Your task to perform on an android device: See recent photos Image 0: 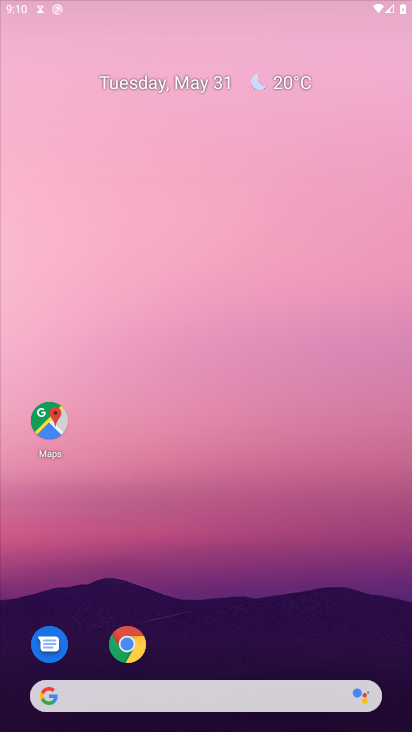
Step 0: press home button
Your task to perform on an android device: See recent photos Image 1: 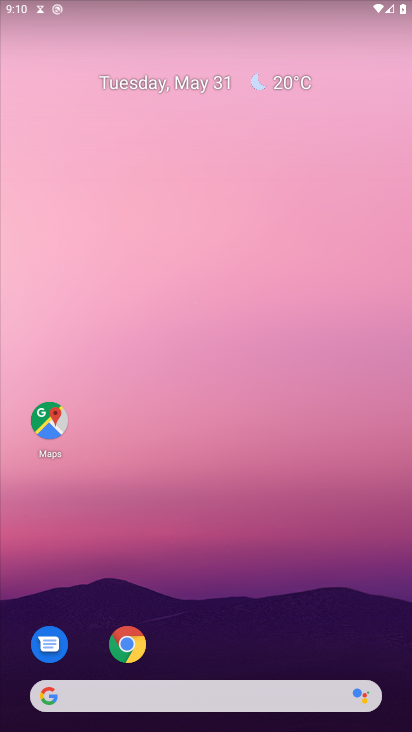
Step 1: drag from (231, 651) to (254, 99)
Your task to perform on an android device: See recent photos Image 2: 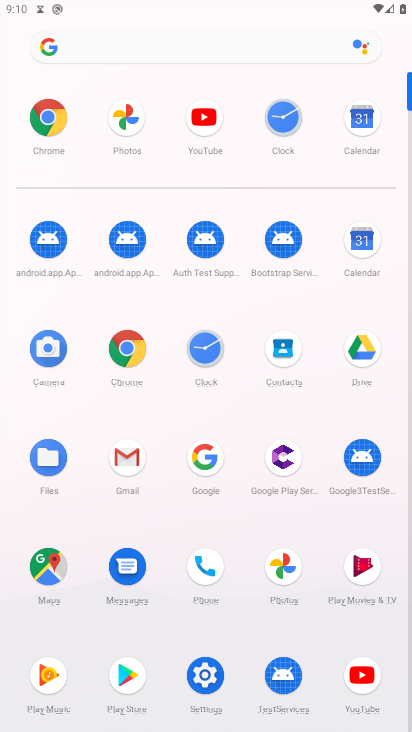
Step 2: click (280, 555)
Your task to perform on an android device: See recent photos Image 3: 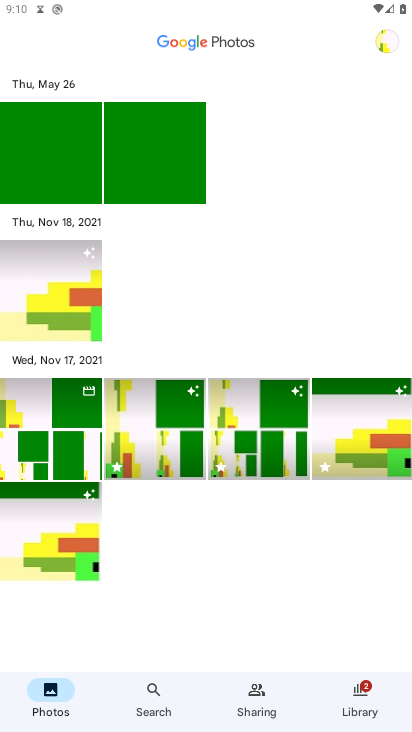
Step 3: task complete